Your task to perform on an android device: Turn on the flashlight Image 0: 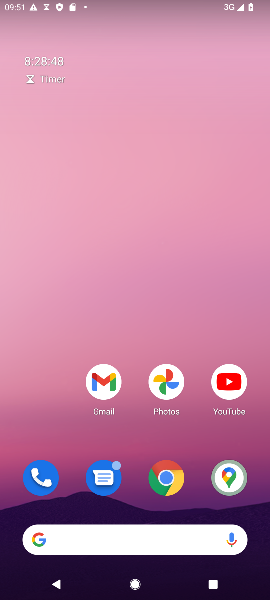
Step 0: drag from (147, 6) to (180, 300)
Your task to perform on an android device: Turn on the flashlight Image 1: 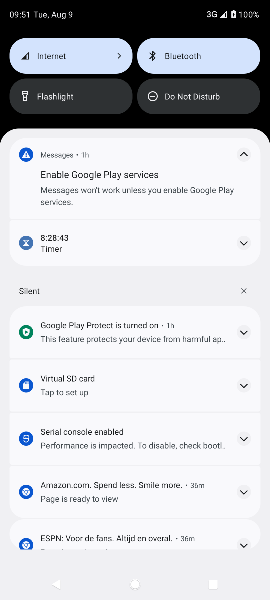
Step 1: drag from (134, 118) to (197, 511)
Your task to perform on an android device: Turn on the flashlight Image 2: 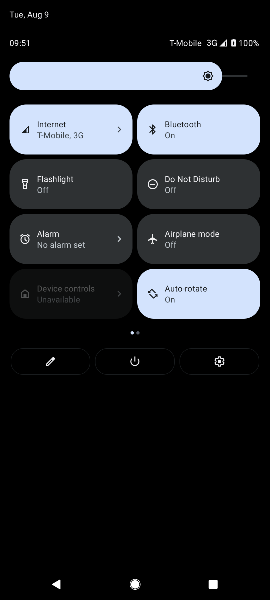
Step 2: click (84, 186)
Your task to perform on an android device: Turn on the flashlight Image 3: 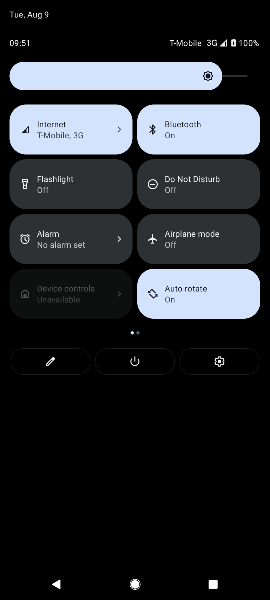
Step 3: task complete